Your task to perform on an android device: Go to Maps Image 0: 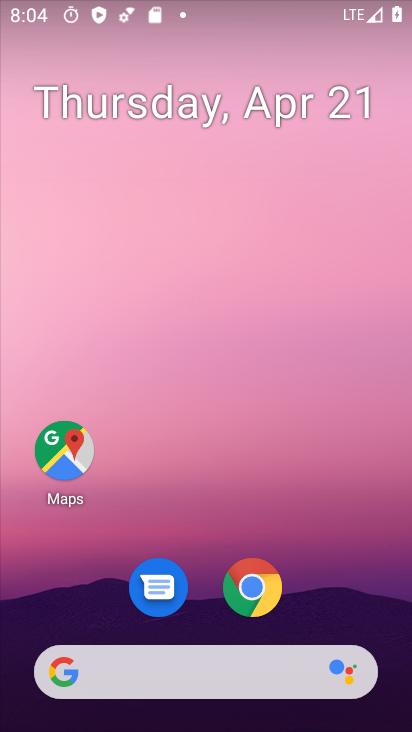
Step 0: click (72, 456)
Your task to perform on an android device: Go to Maps Image 1: 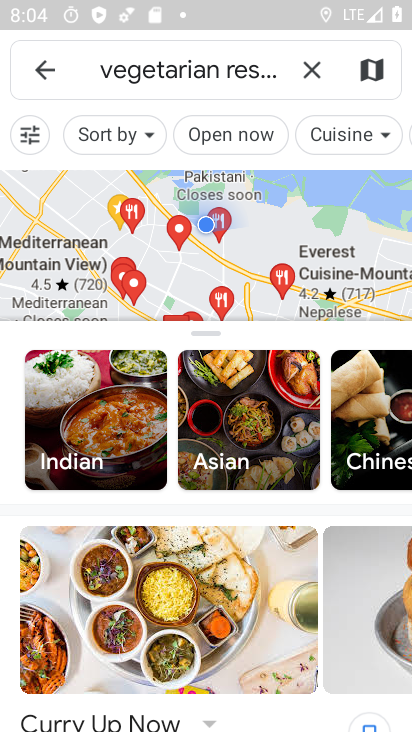
Step 1: click (31, 71)
Your task to perform on an android device: Go to Maps Image 2: 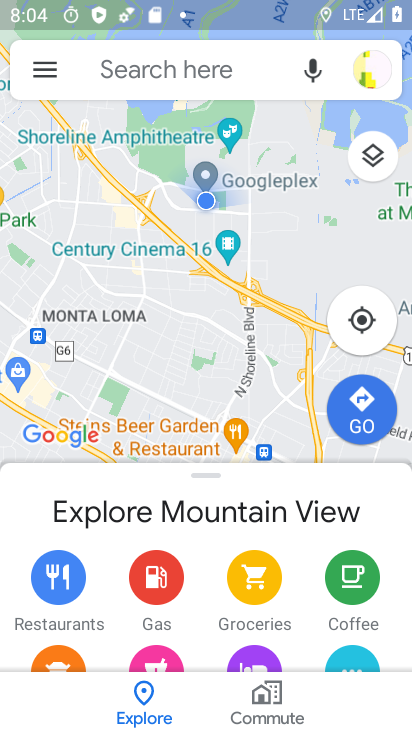
Step 2: task complete